Your task to perform on an android device: star an email in the gmail app Image 0: 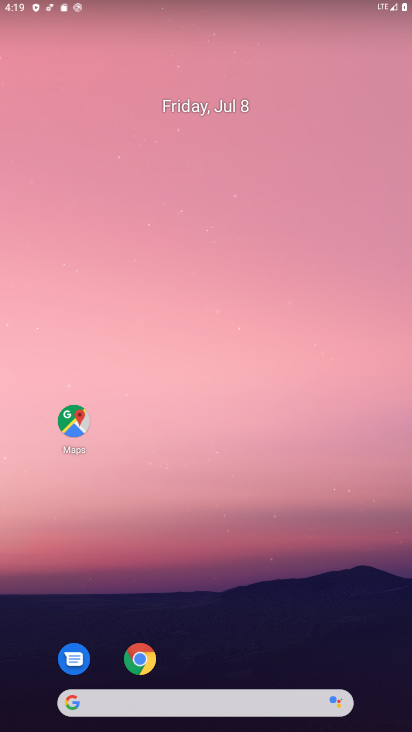
Step 0: drag from (254, 660) to (299, 63)
Your task to perform on an android device: star an email in the gmail app Image 1: 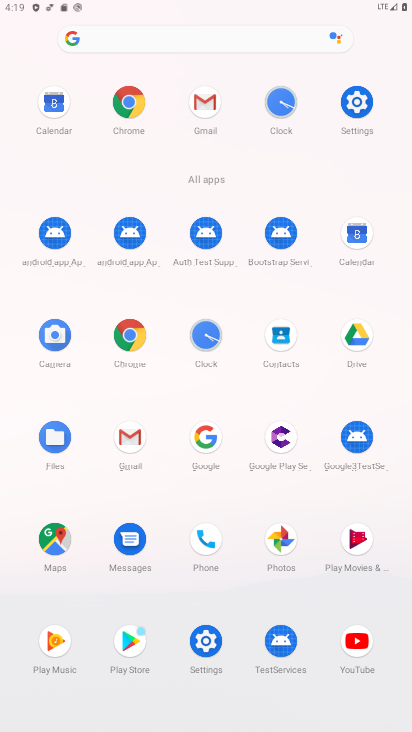
Step 1: click (225, 110)
Your task to perform on an android device: star an email in the gmail app Image 2: 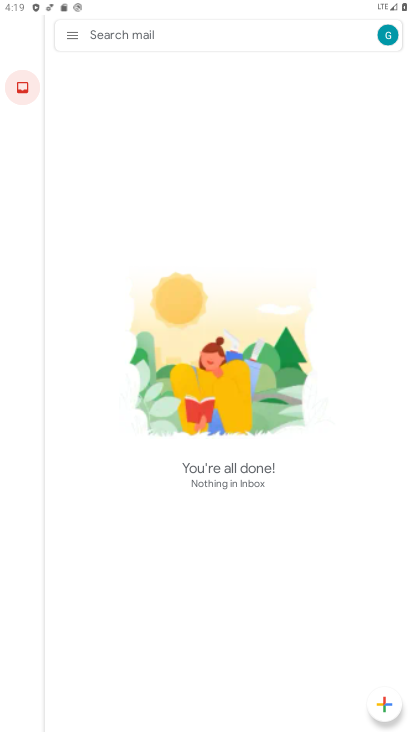
Step 2: click (67, 38)
Your task to perform on an android device: star an email in the gmail app Image 3: 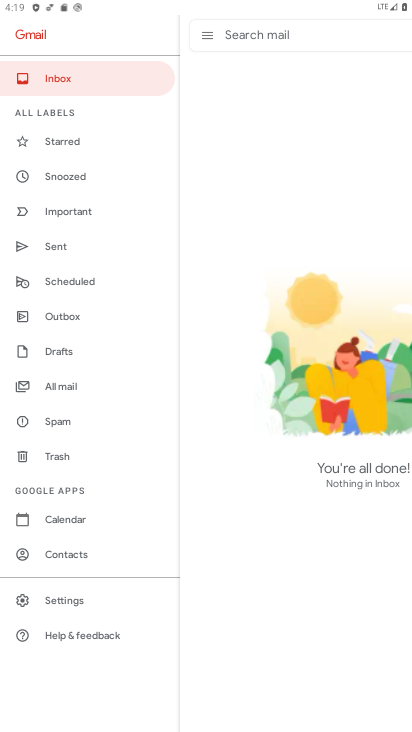
Step 3: task complete